Your task to perform on an android device: allow notifications from all sites in the chrome app Image 0: 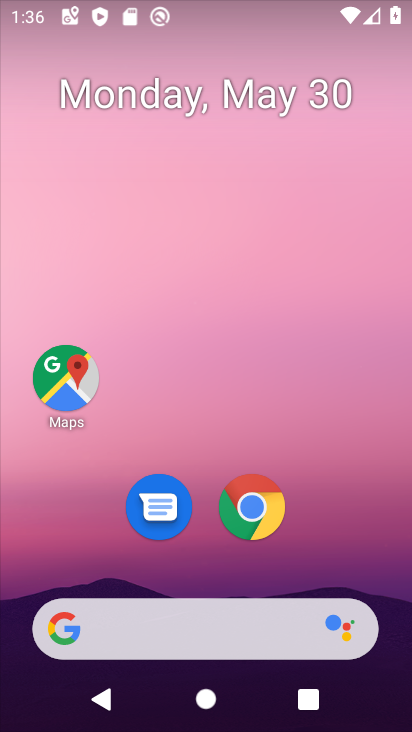
Step 0: press home button
Your task to perform on an android device: allow notifications from all sites in the chrome app Image 1: 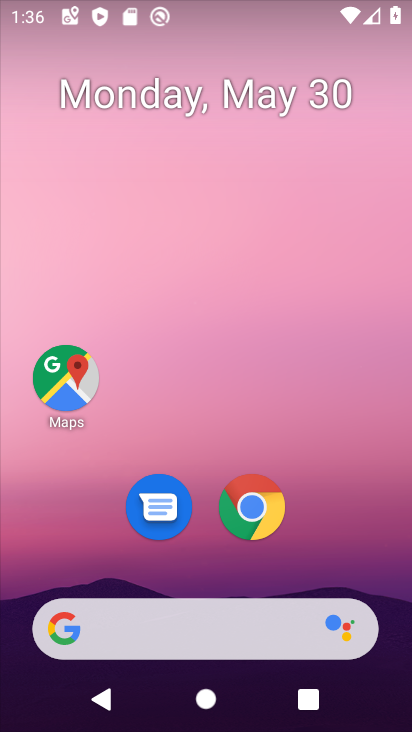
Step 1: drag from (218, 576) to (200, 94)
Your task to perform on an android device: allow notifications from all sites in the chrome app Image 2: 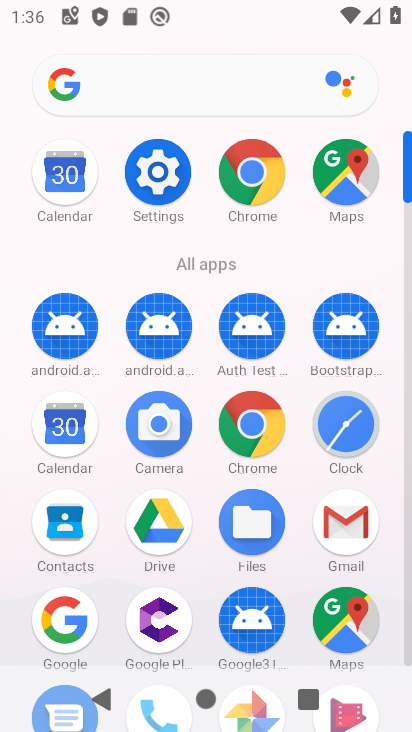
Step 2: click (160, 175)
Your task to perform on an android device: allow notifications from all sites in the chrome app Image 3: 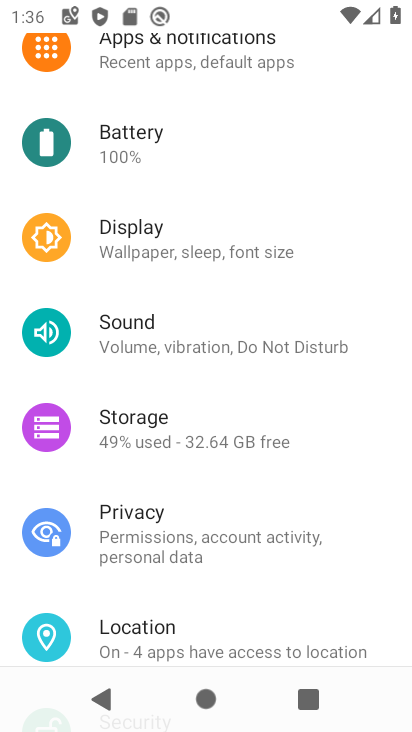
Step 3: press home button
Your task to perform on an android device: allow notifications from all sites in the chrome app Image 4: 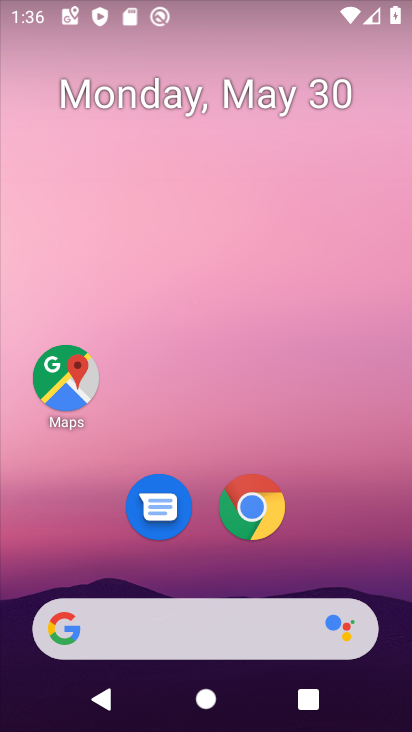
Step 4: drag from (200, 561) to (188, 119)
Your task to perform on an android device: allow notifications from all sites in the chrome app Image 5: 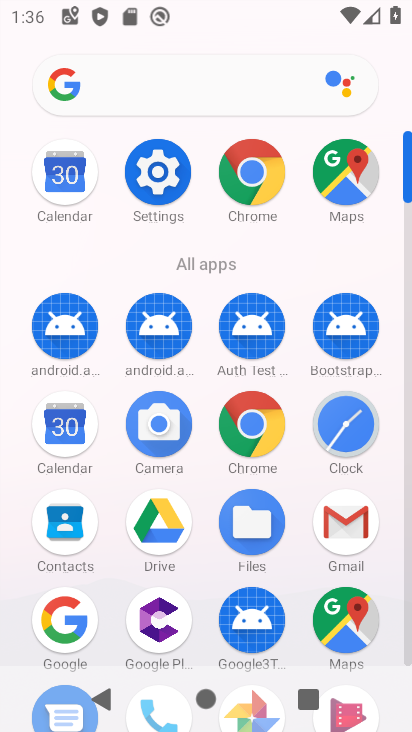
Step 5: click (239, 435)
Your task to perform on an android device: allow notifications from all sites in the chrome app Image 6: 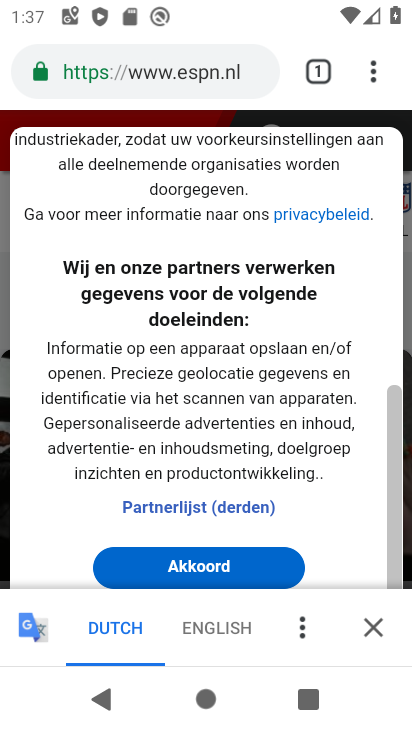
Step 6: click (372, 75)
Your task to perform on an android device: allow notifications from all sites in the chrome app Image 7: 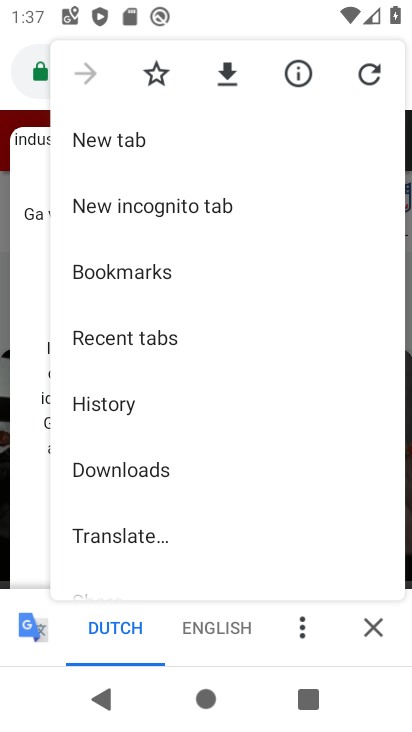
Step 7: drag from (170, 534) to (144, 210)
Your task to perform on an android device: allow notifications from all sites in the chrome app Image 8: 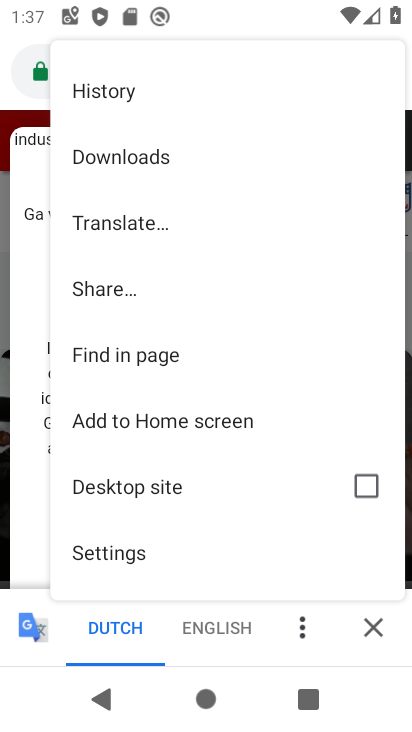
Step 8: drag from (146, 460) to (130, 149)
Your task to perform on an android device: allow notifications from all sites in the chrome app Image 9: 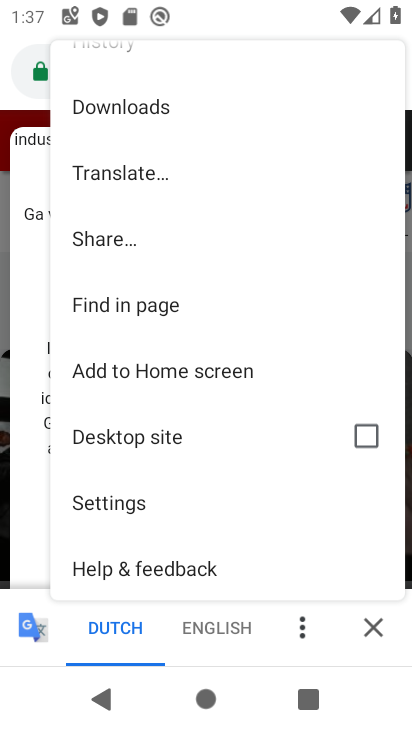
Step 9: click (127, 515)
Your task to perform on an android device: allow notifications from all sites in the chrome app Image 10: 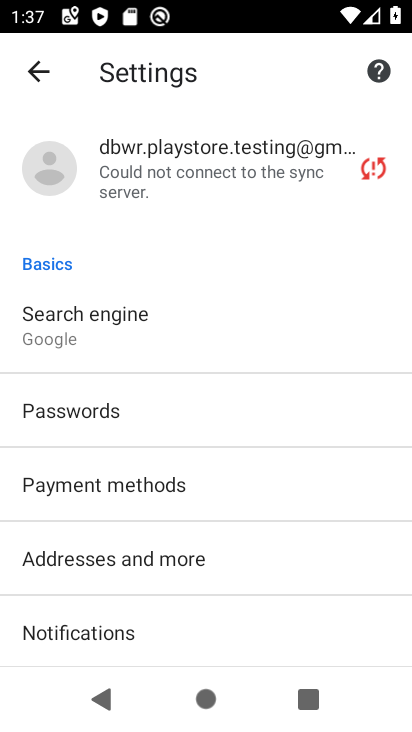
Step 10: drag from (157, 557) to (166, 281)
Your task to perform on an android device: allow notifications from all sites in the chrome app Image 11: 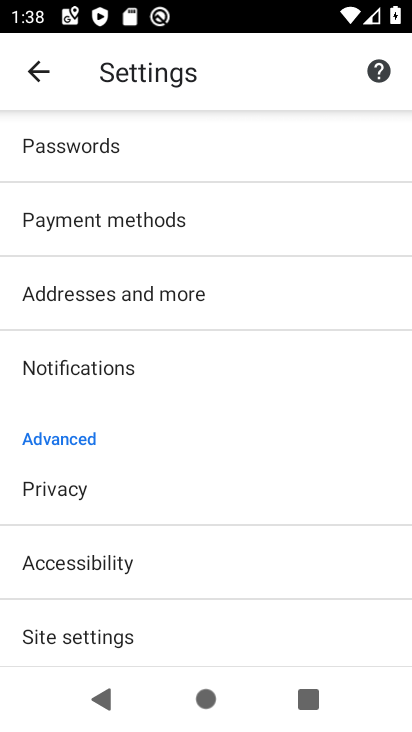
Step 11: drag from (86, 541) to (106, 384)
Your task to perform on an android device: allow notifications from all sites in the chrome app Image 12: 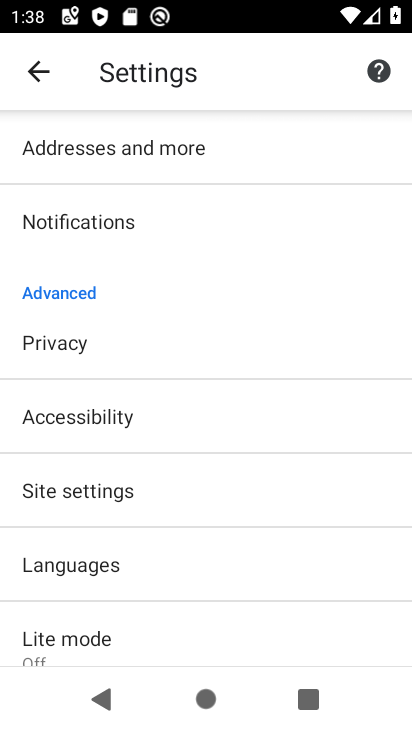
Step 12: click (71, 225)
Your task to perform on an android device: allow notifications from all sites in the chrome app Image 13: 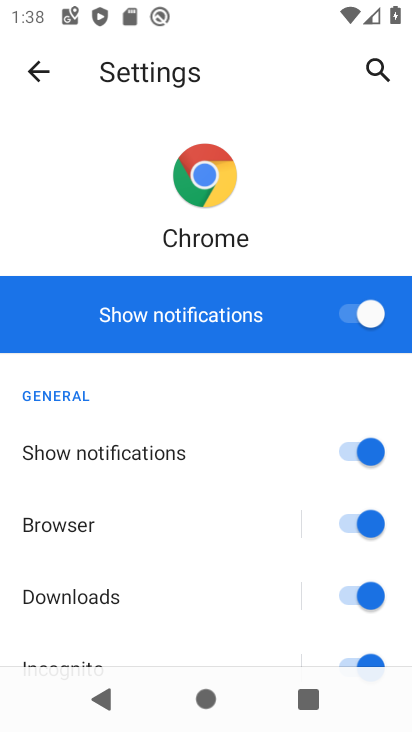
Step 13: click (336, 318)
Your task to perform on an android device: allow notifications from all sites in the chrome app Image 14: 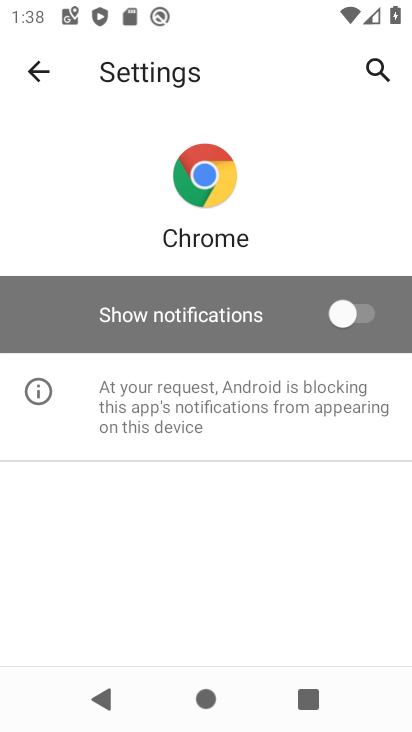
Step 14: task complete